Your task to perform on an android device: Go to wifi settings Image 0: 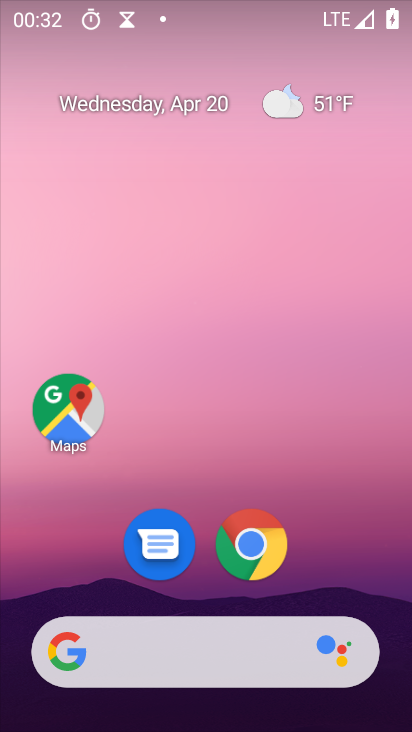
Step 0: drag from (323, 562) to (342, 116)
Your task to perform on an android device: Go to wifi settings Image 1: 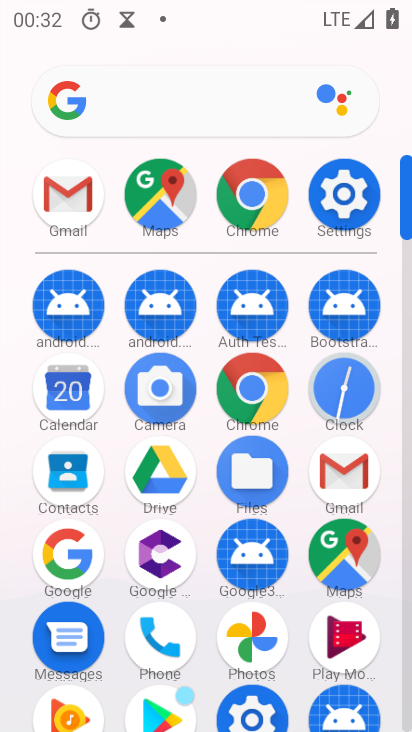
Step 1: click (344, 212)
Your task to perform on an android device: Go to wifi settings Image 2: 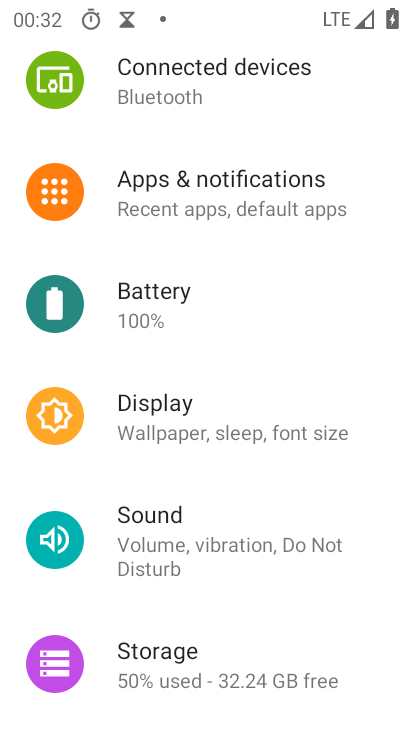
Step 2: drag from (203, 382) to (207, 445)
Your task to perform on an android device: Go to wifi settings Image 3: 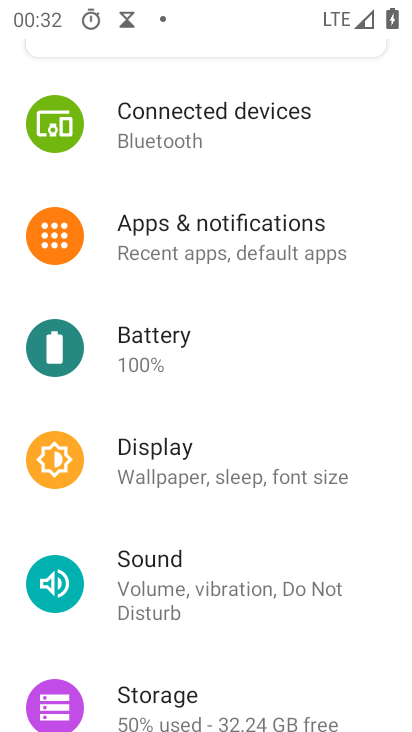
Step 3: drag from (214, 379) to (215, 441)
Your task to perform on an android device: Go to wifi settings Image 4: 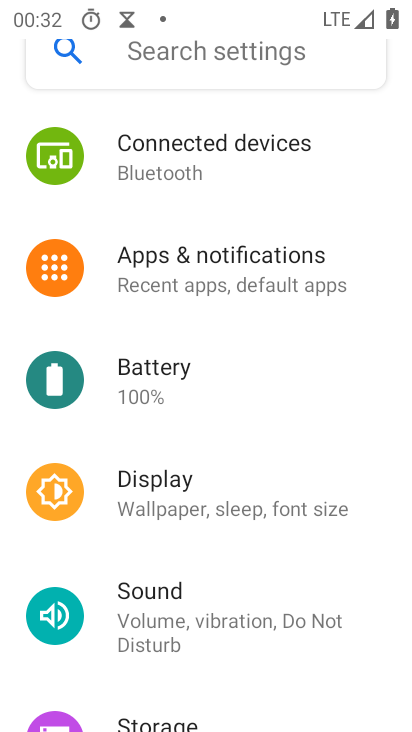
Step 4: drag from (238, 381) to (244, 442)
Your task to perform on an android device: Go to wifi settings Image 5: 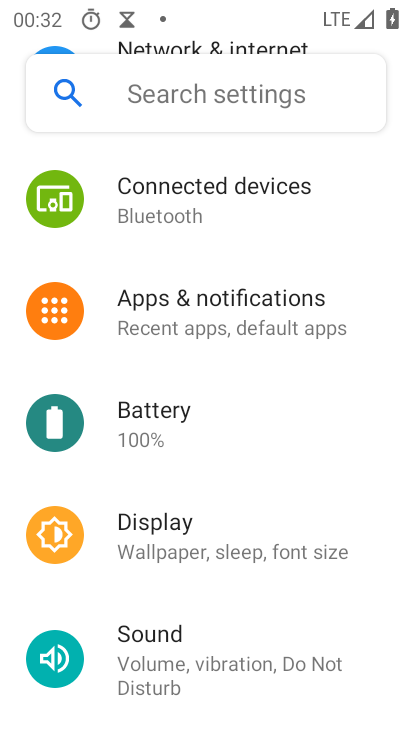
Step 5: drag from (228, 374) to (221, 422)
Your task to perform on an android device: Go to wifi settings Image 6: 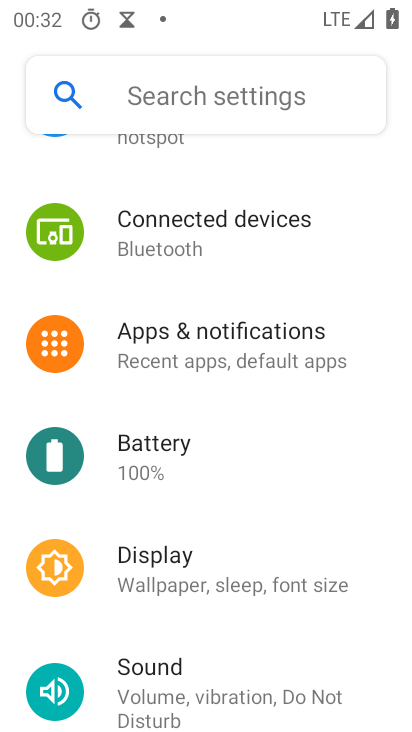
Step 6: drag from (211, 365) to (238, 442)
Your task to perform on an android device: Go to wifi settings Image 7: 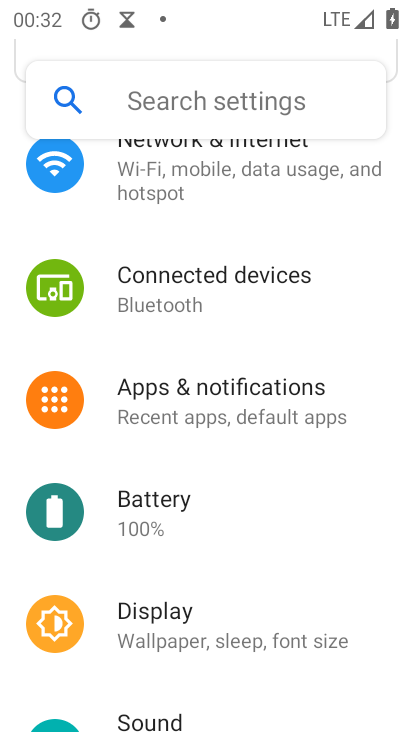
Step 7: drag from (245, 367) to (271, 428)
Your task to perform on an android device: Go to wifi settings Image 8: 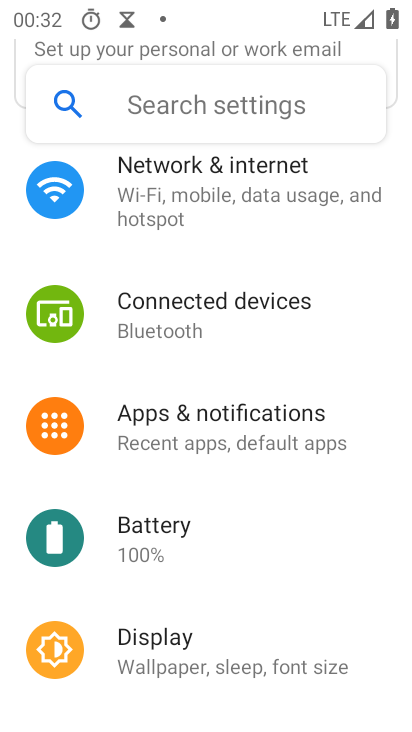
Step 8: drag from (255, 480) to (276, 338)
Your task to perform on an android device: Go to wifi settings Image 9: 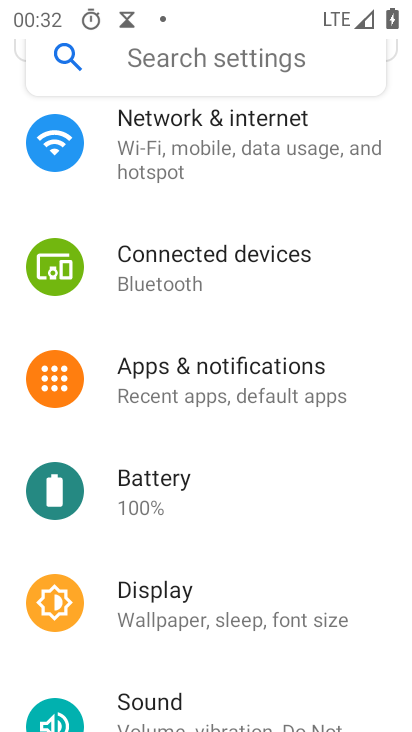
Step 9: click (231, 172)
Your task to perform on an android device: Go to wifi settings Image 10: 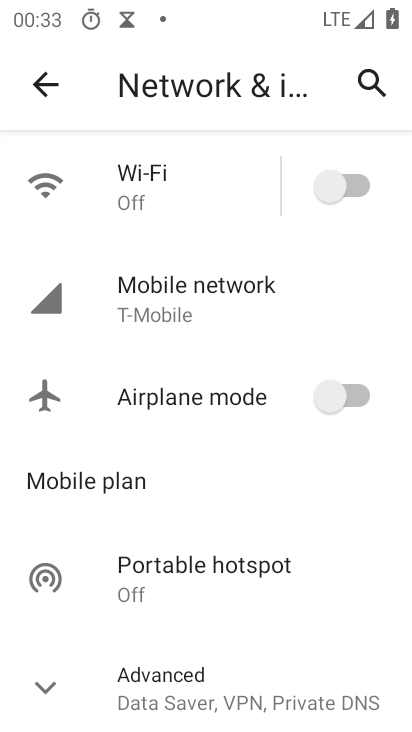
Step 10: click (54, 174)
Your task to perform on an android device: Go to wifi settings Image 11: 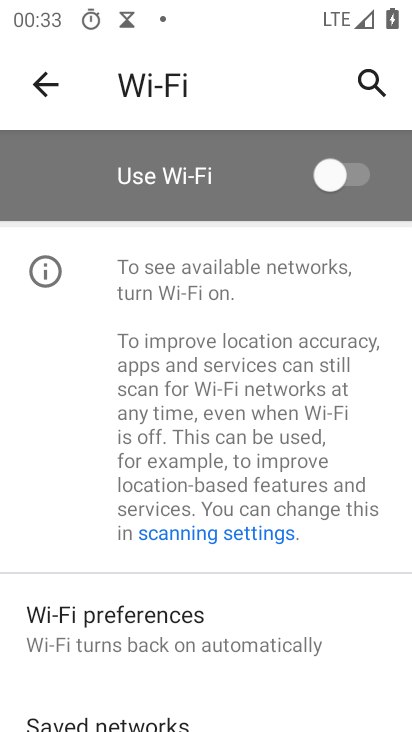
Step 11: task complete